Your task to perform on an android device: Go to privacy settings Image 0: 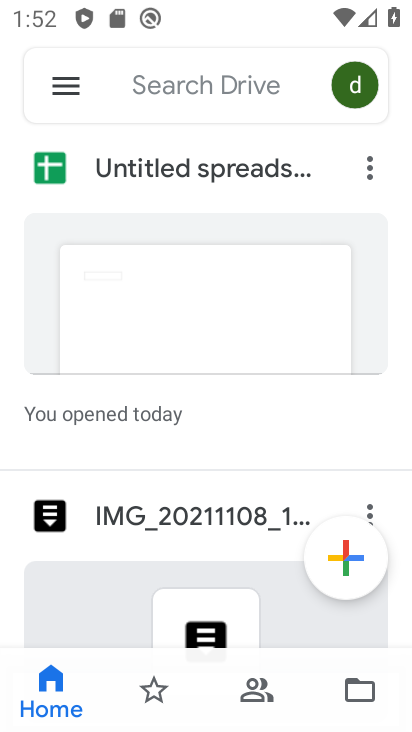
Step 0: press home button
Your task to perform on an android device: Go to privacy settings Image 1: 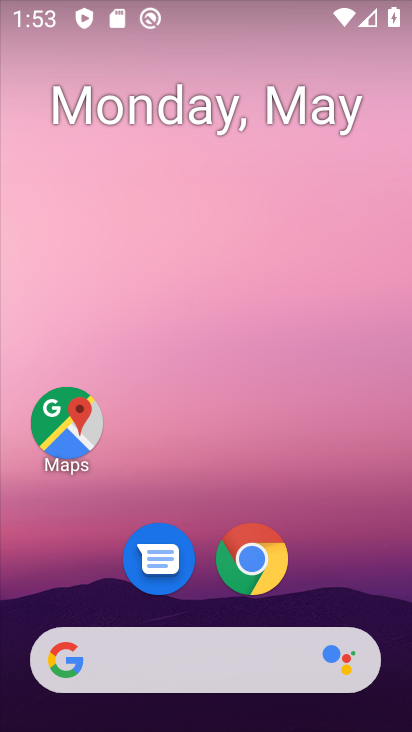
Step 1: drag from (365, 602) to (330, 0)
Your task to perform on an android device: Go to privacy settings Image 2: 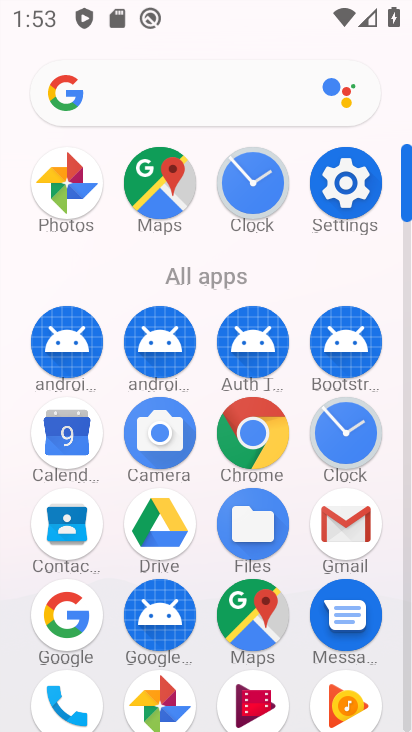
Step 2: click (341, 185)
Your task to perform on an android device: Go to privacy settings Image 3: 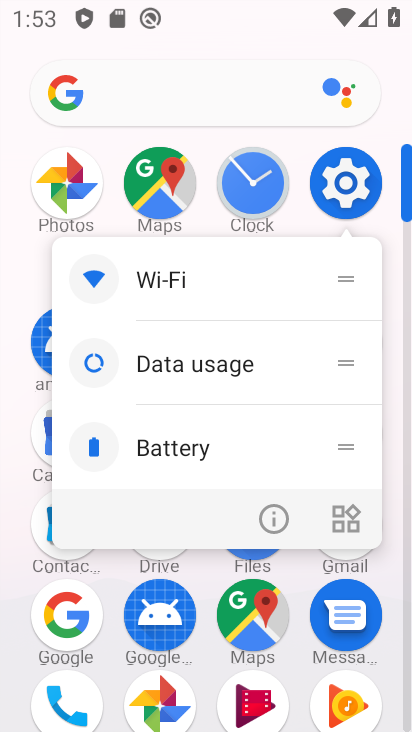
Step 3: click (348, 190)
Your task to perform on an android device: Go to privacy settings Image 4: 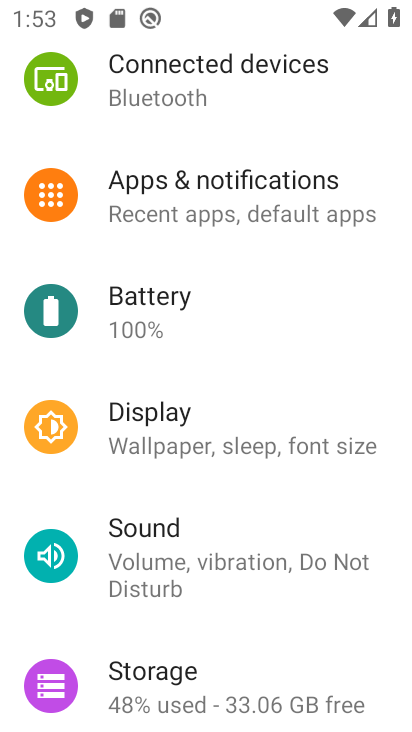
Step 4: drag from (277, 542) to (261, 225)
Your task to perform on an android device: Go to privacy settings Image 5: 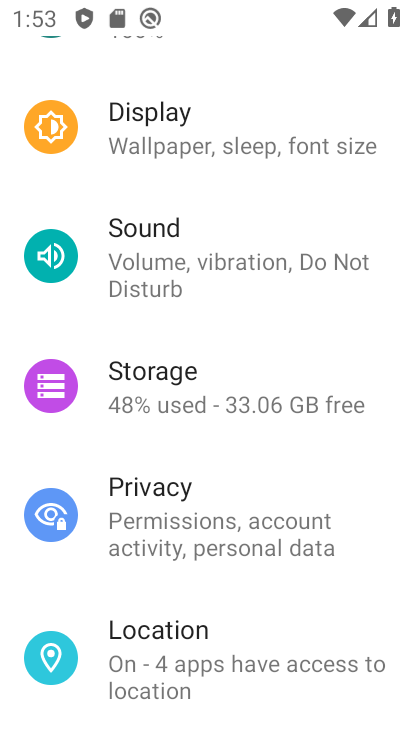
Step 5: click (130, 530)
Your task to perform on an android device: Go to privacy settings Image 6: 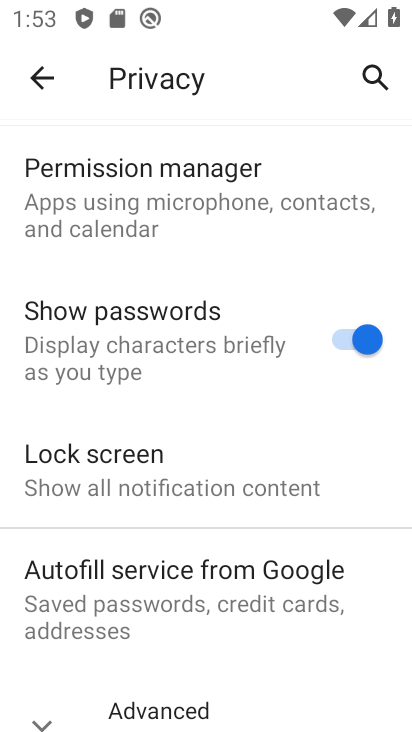
Step 6: task complete